Your task to perform on an android device: Open Youtube and go to the subscriptions tab Image 0: 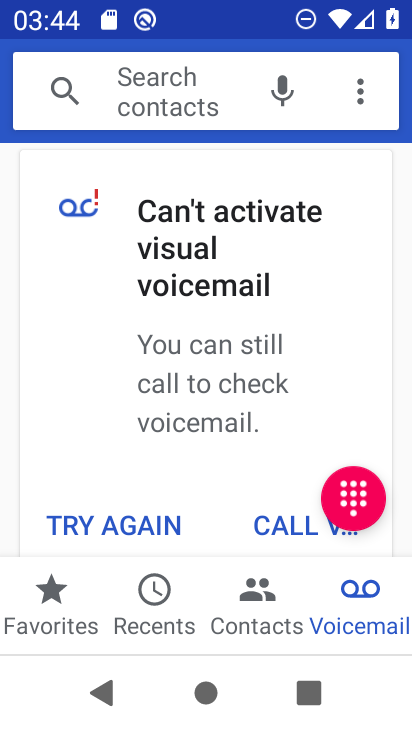
Step 0: press back button
Your task to perform on an android device: Open Youtube and go to the subscriptions tab Image 1: 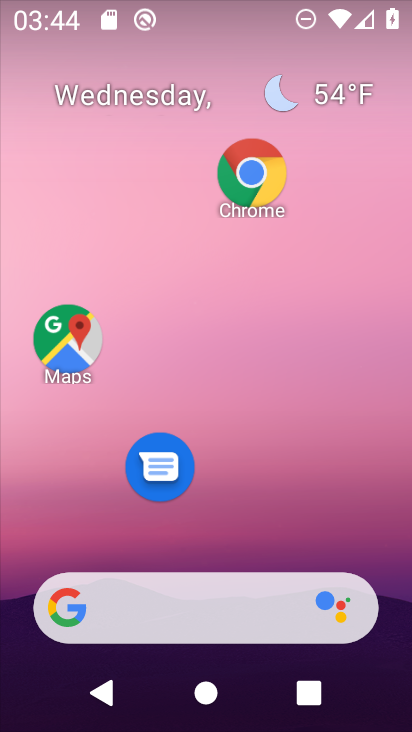
Step 1: drag from (262, 535) to (328, 18)
Your task to perform on an android device: Open Youtube and go to the subscriptions tab Image 2: 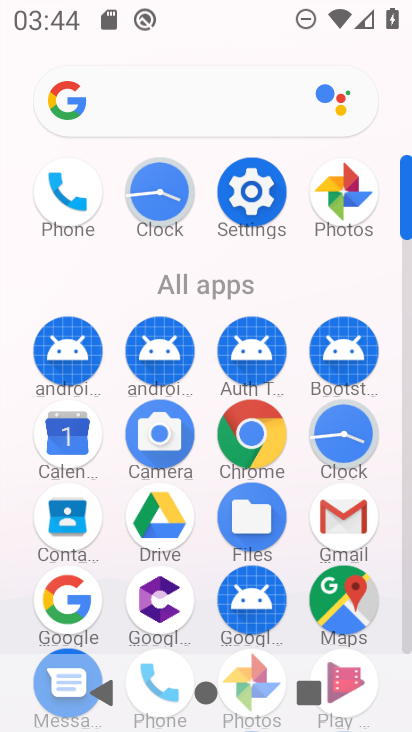
Step 2: drag from (189, 548) to (219, 66)
Your task to perform on an android device: Open Youtube and go to the subscriptions tab Image 3: 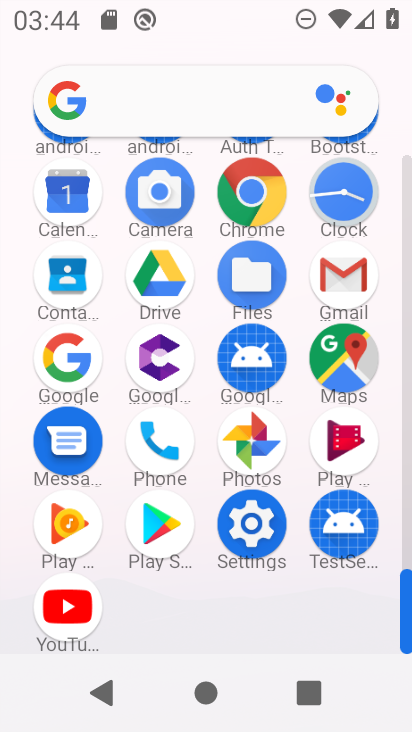
Step 3: click (69, 609)
Your task to perform on an android device: Open Youtube and go to the subscriptions tab Image 4: 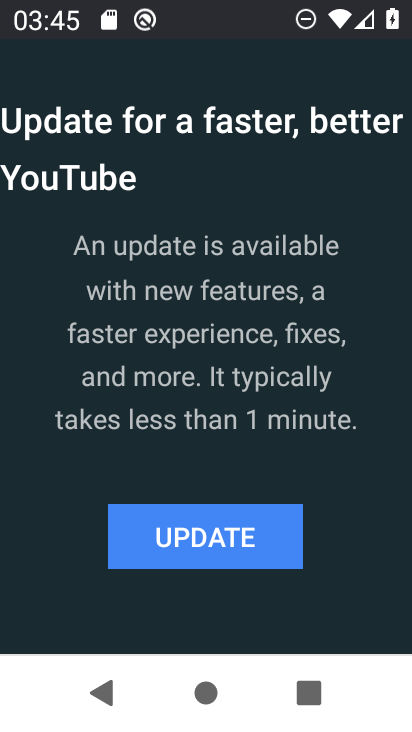
Step 4: click (169, 548)
Your task to perform on an android device: Open Youtube and go to the subscriptions tab Image 5: 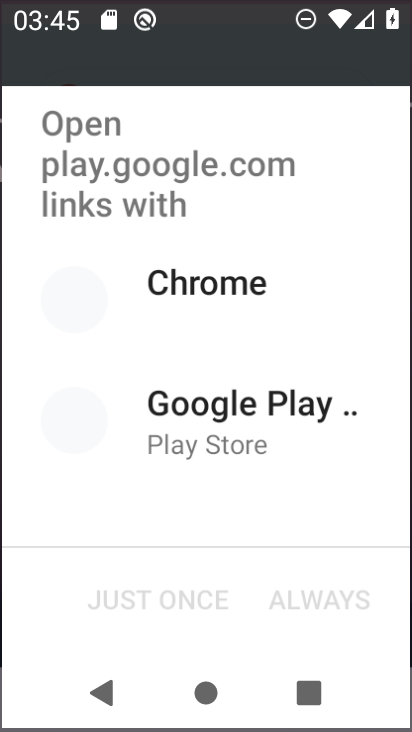
Step 5: click (182, 536)
Your task to perform on an android device: Open Youtube and go to the subscriptions tab Image 6: 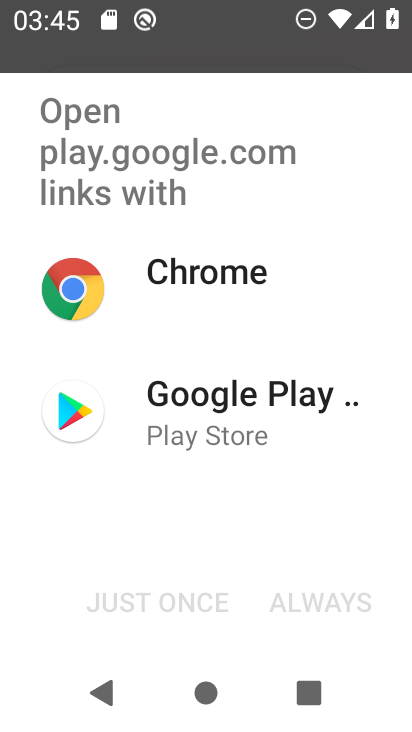
Step 6: click (192, 402)
Your task to perform on an android device: Open Youtube and go to the subscriptions tab Image 7: 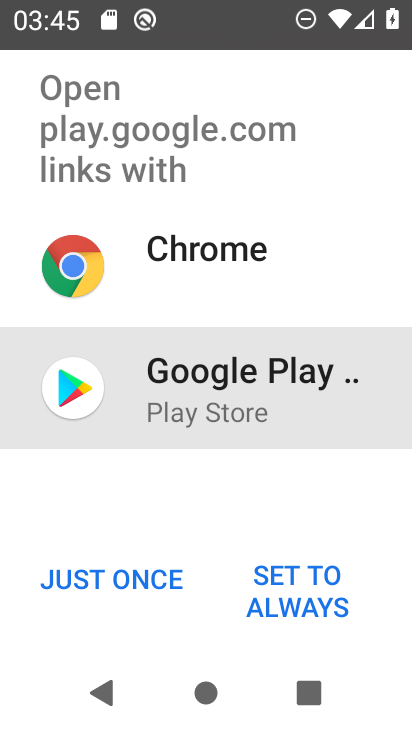
Step 7: click (127, 585)
Your task to perform on an android device: Open Youtube and go to the subscriptions tab Image 8: 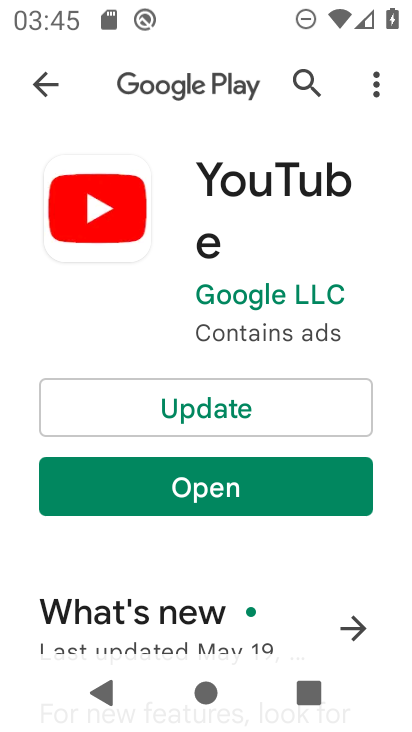
Step 8: click (245, 498)
Your task to perform on an android device: Open Youtube and go to the subscriptions tab Image 9: 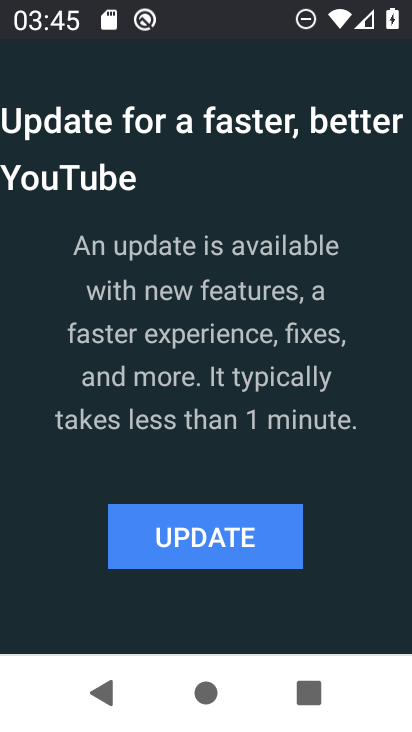
Step 9: click (211, 530)
Your task to perform on an android device: Open Youtube and go to the subscriptions tab Image 10: 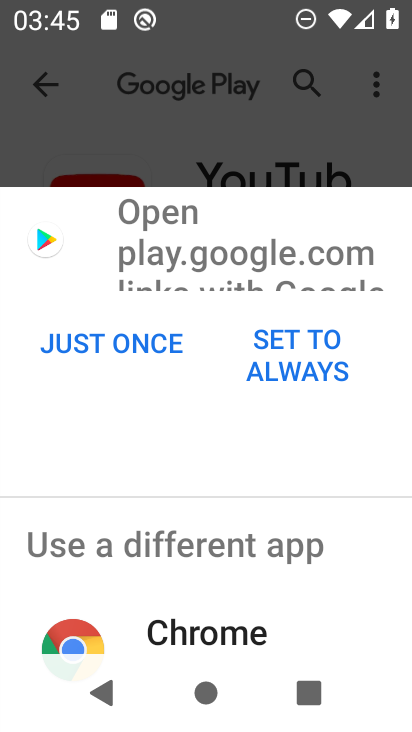
Step 10: click (89, 370)
Your task to perform on an android device: Open Youtube and go to the subscriptions tab Image 11: 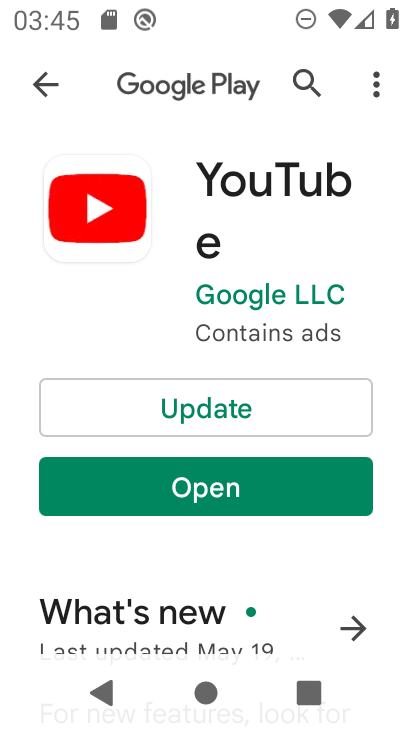
Step 11: click (180, 404)
Your task to perform on an android device: Open Youtube and go to the subscriptions tab Image 12: 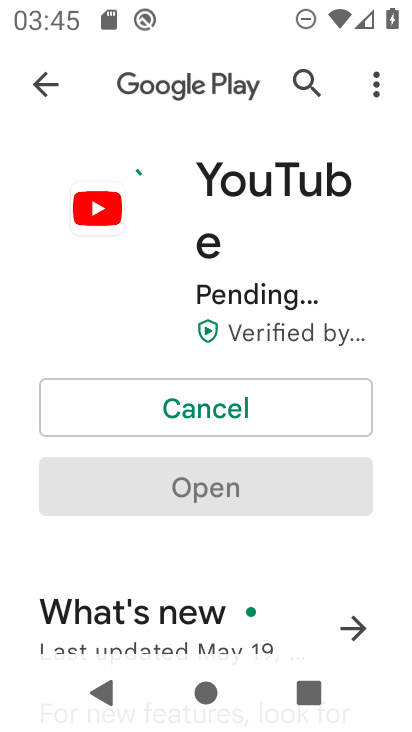
Step 12: drag from (140, 594) to (167, 635)
Your task to perform on an android device: Open Youtube and go to the subscriptions tab Image 13: 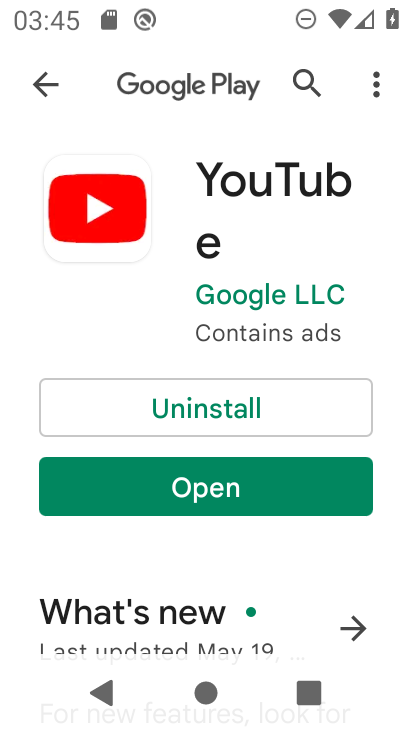
Step 13: click (190, 486)
Your task to perform on an android device: Open Youtube and go to the subscriptions tab Image 14: 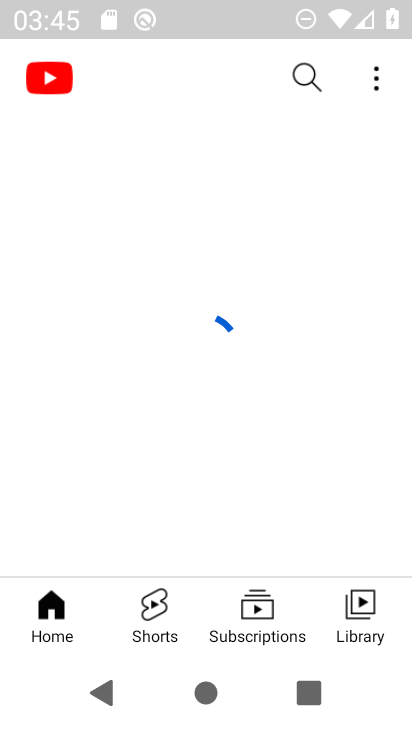
Step 14: click (262, 618)
Your task to perform on an android device: Open Youtube and go to the subscriptions tab Image 15: 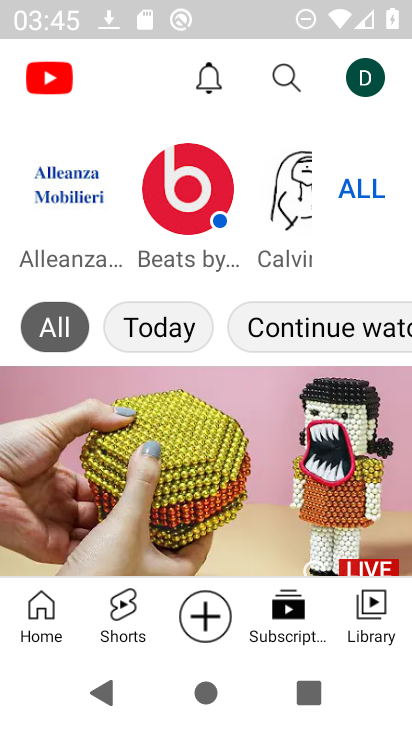
Step 15: task complete